Your task to perform on an android device: allow cookies in the chrome app Image 0: 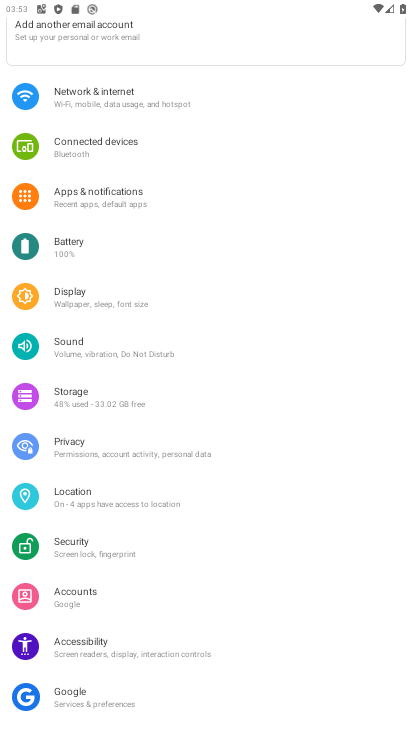
Step 0: press home button
Your task to perform on an android device: allow cookies in the chrome app Image 1: 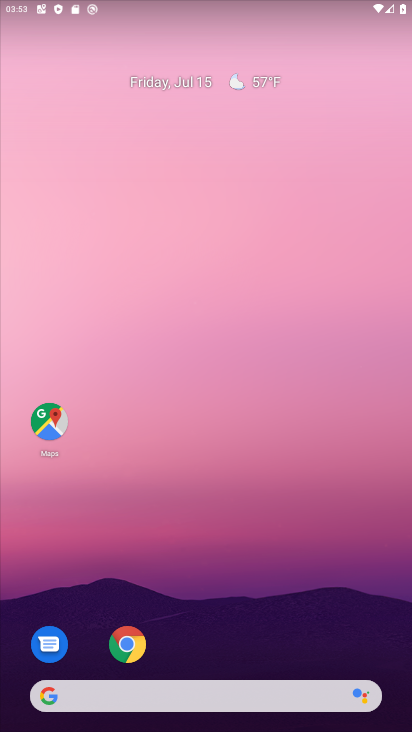
Step 1: click (133, 644)
Your task to perform on an android device: allow cookies in the chrome app Image 2: 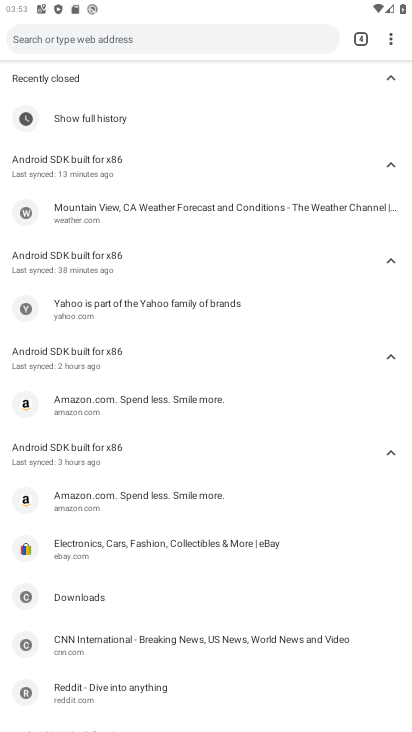
Step 2: click (398, 46)
Your task to perform on an android device: allow cookies in the chrome app Image 3: 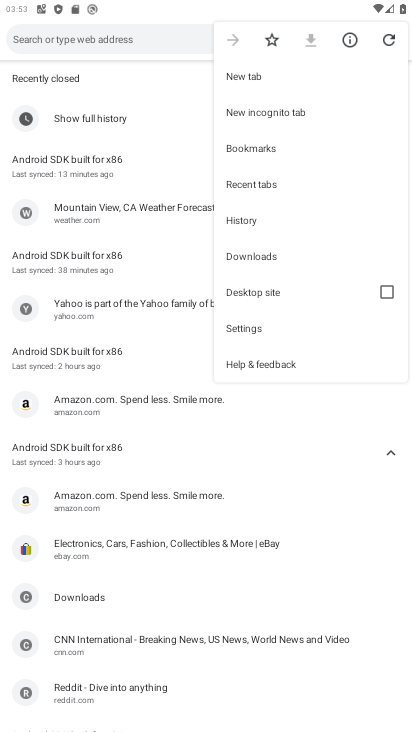
Step 3: click (272, 337)
Your task to perform on an android device: allow cookies in the chrome app Image 4: 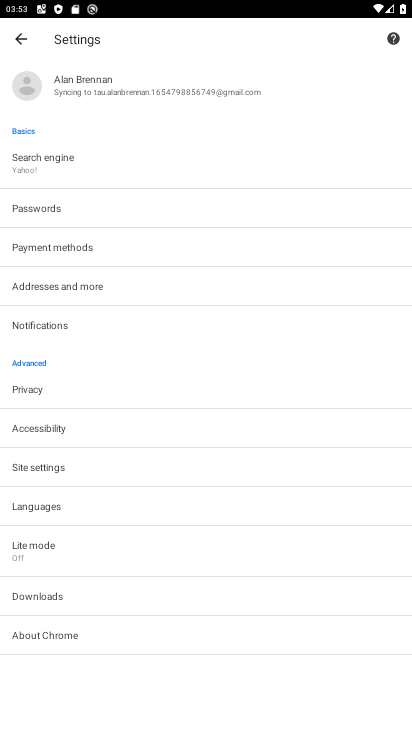
Step 4: click (265, 459)
Your task to perform on an android device: allow cookies in the chrome app Image 5: 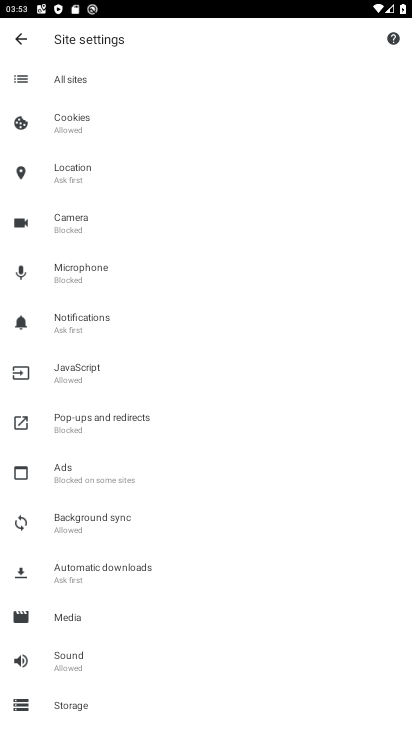
Step 5: click (161, 123)
Your task to perform on an android device: allow cookies in the chrome app Image 6: 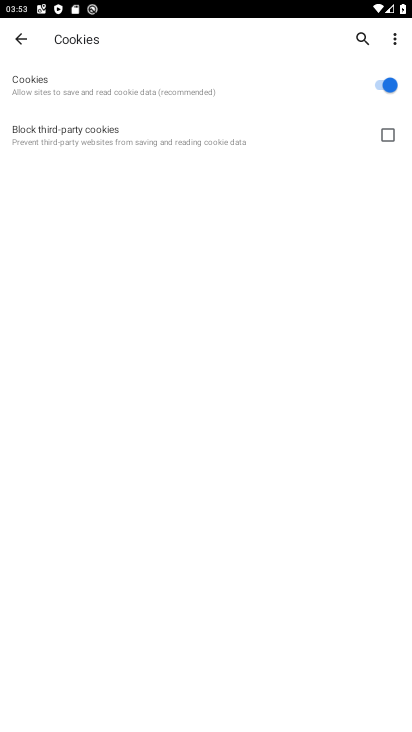
Step 6: task complete